Your task to perform on an android device: Open ESPN.com Image 0: 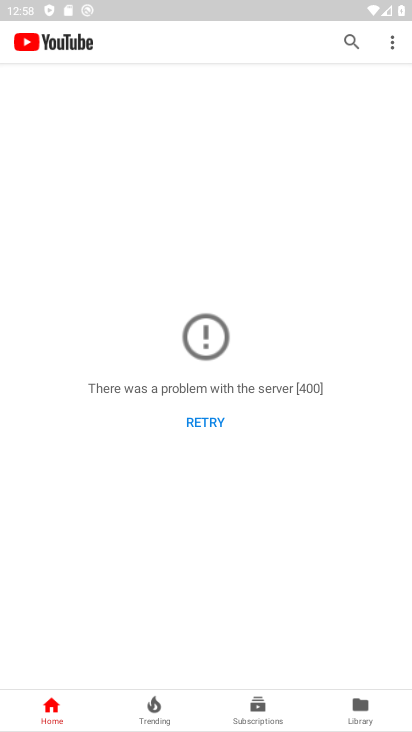
Step 0: press home button
Your task to perform on an android device: Open ESPN.com Image 1: 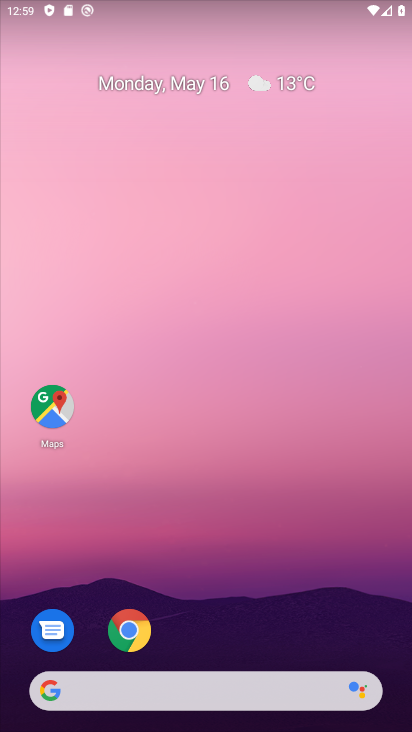
Step 1: click (288, 508)
Your task to perform on an android device: Open ESPN.com Image 2: 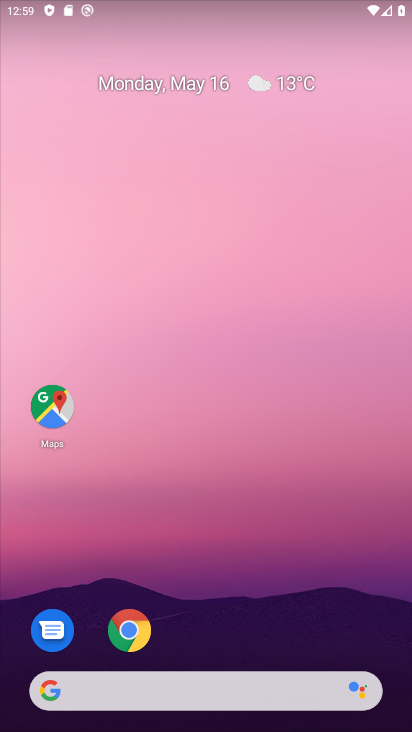
Step 2: click (152, 636)
Your task to perform on an android device: Open ESPN.com Image 3: 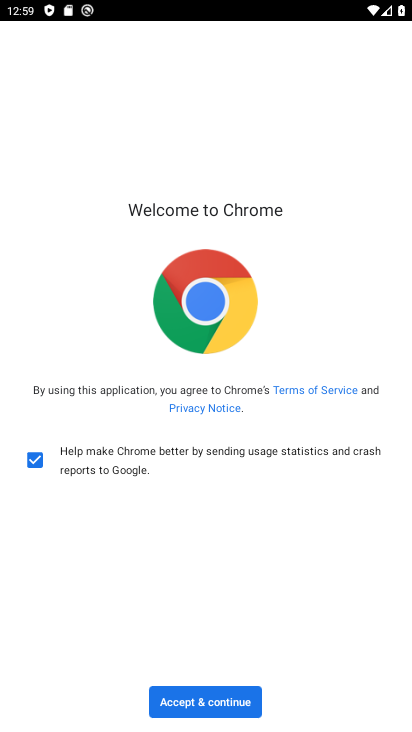
Step 3: click (180, 694)
Your task to perform on an android device: Open ESPN.com Image 4: 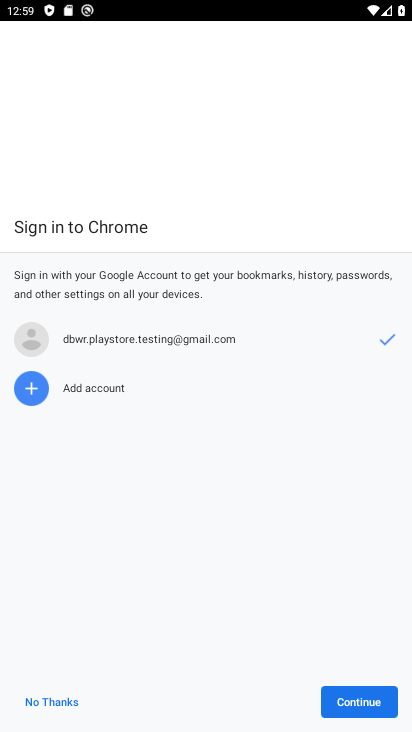
Step 4: click (347, 692)
Your task to perform on an android device: Open ESPN.com Image 5: 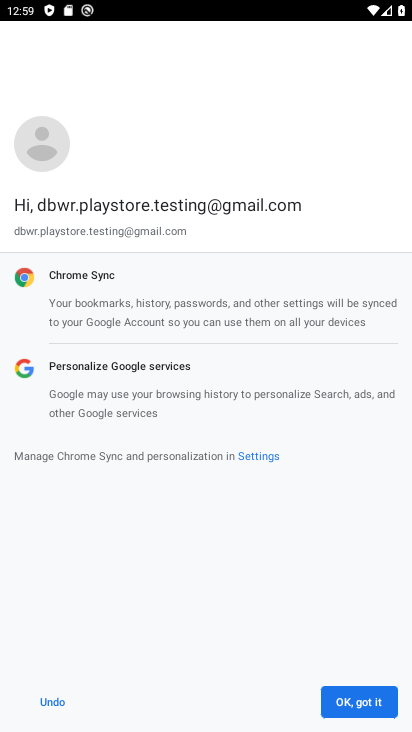
Step 5: click (347, 692)
Your task to perform on an android device: Open ESPN.com Image 6: 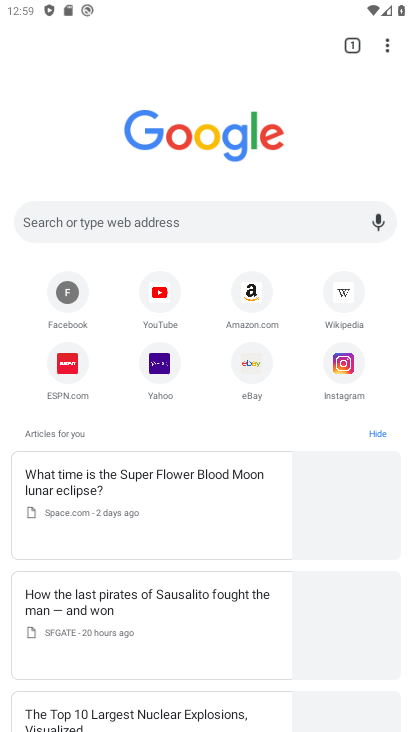
Step 6: click (70, 367)
Your task to perform on an android device: Open ESPN.com Image 7: 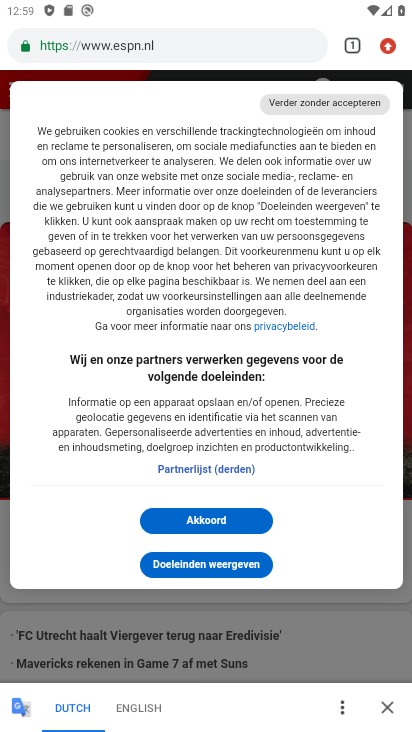
Step 7: task complete